Your task to perform on an android device: Go to Wikipedia Image 0: 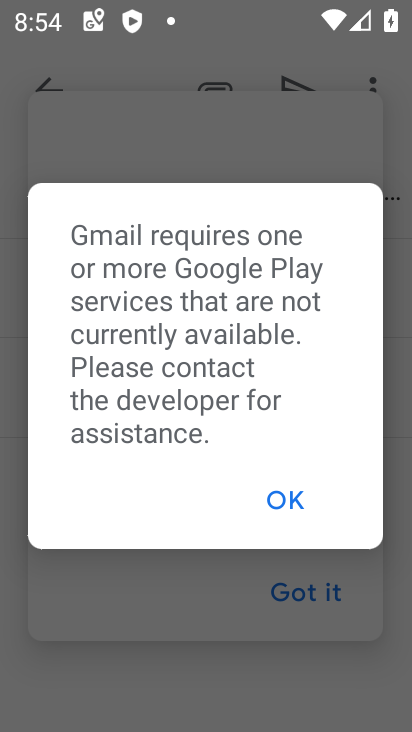
Step 0: click (299, 514)
Your task to perform on an android device: Go to Wikipedia Image 1: 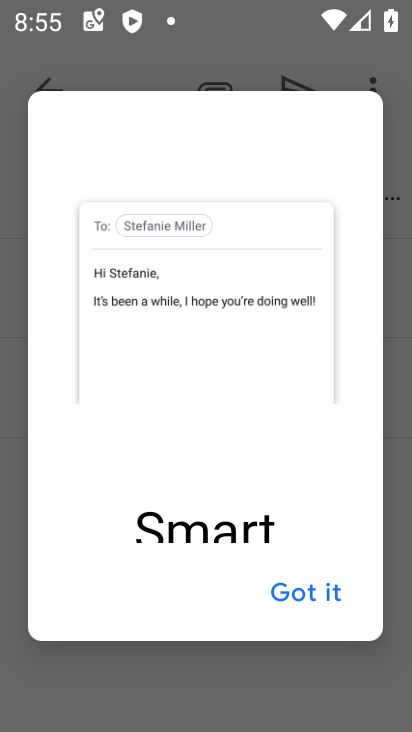
Step 1: press home button
Your task to perform on an android device: Go to Wikipedia Image 2: 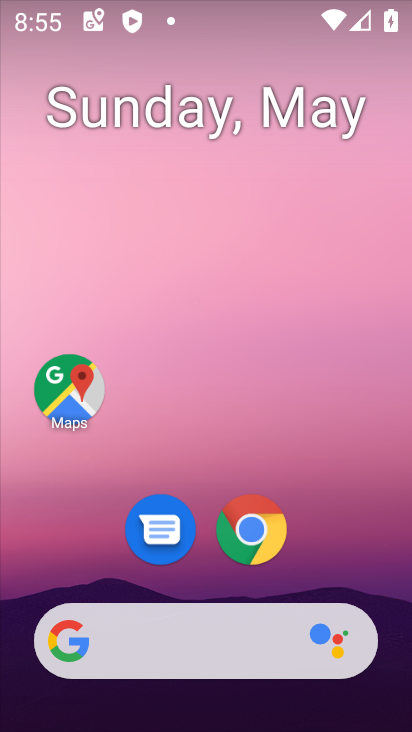
Step 2: click (235, 652)
Your task to perform on an android device: Go to Wikipedia Image 3: 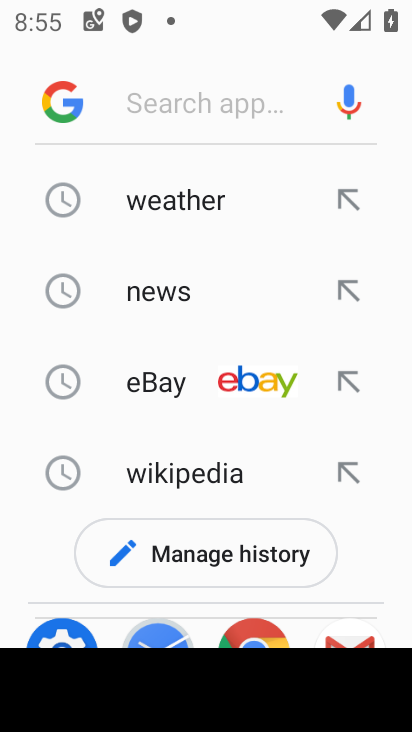
Step 3: click (241, 465)
Your task to perform on an android device: Go to Wikipedia Image 4: 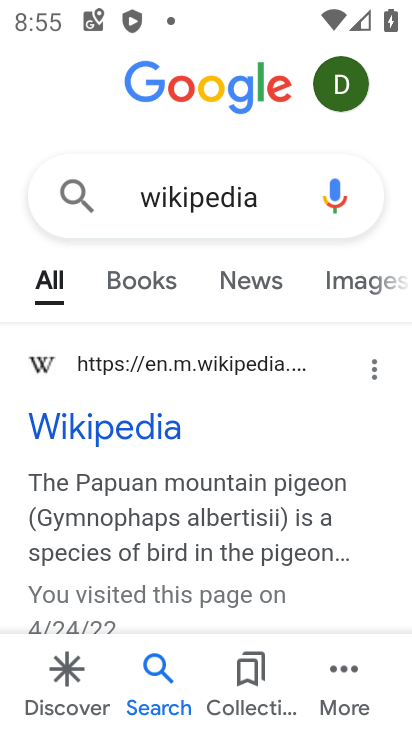
Step 4: task complete